Your task to perform on an android device: turn off picture-in-picture Image 0: 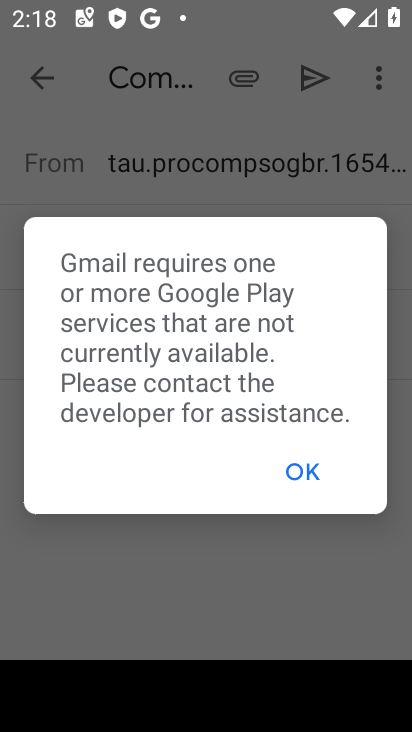
Step 0: click (301, 463)
Your task to perform on an android device: turn off picture-in-picture Image 1: 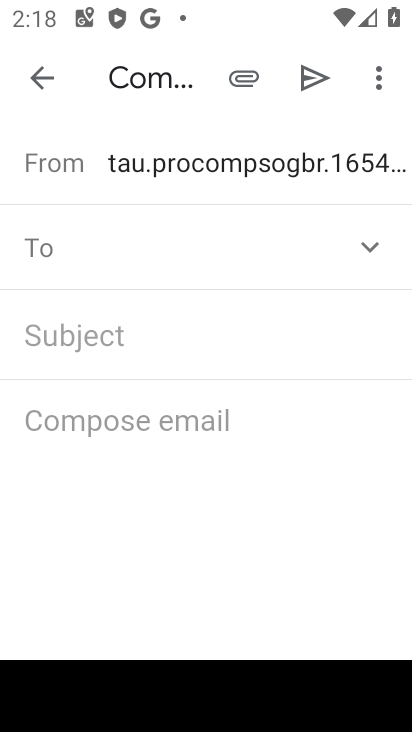
Step 1: press back button
Your task to perform on an android device: turn off picture-in-picture Image 2: 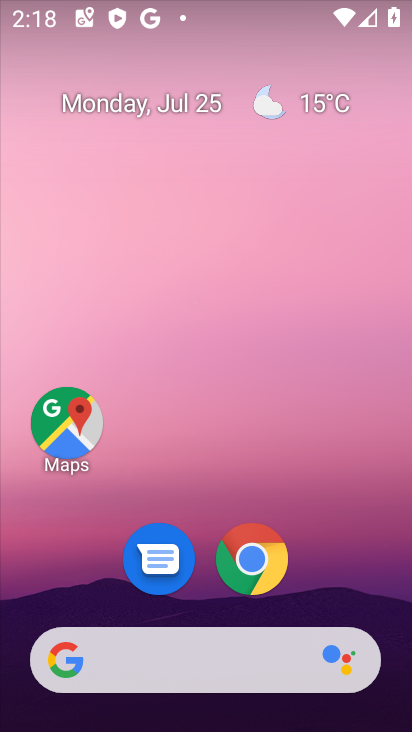
Step 2: drag from (103, 573) to (258, 14)
Your task to perform on an android device: turn off picture-in-picture Image 3: 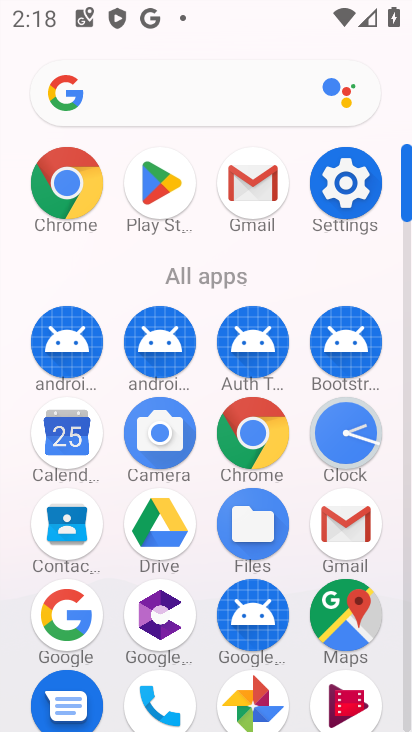
Step 3: click (338, 184)
Your task to perform on an android device: turn off picture-in-picture Image 4: 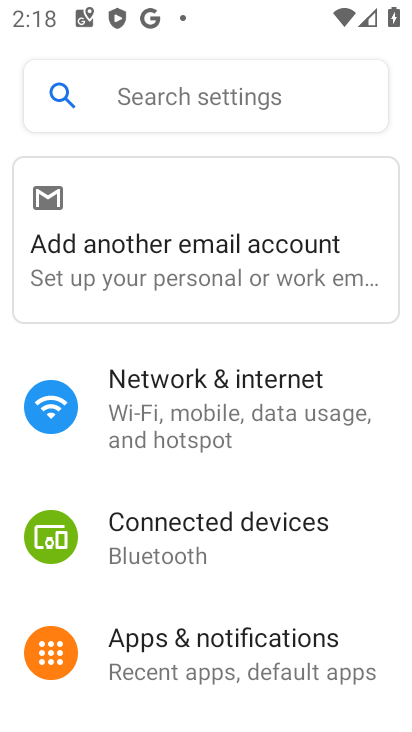
Step 4: drag from (245, 645) to (259, 39)
Your task to perform on an android device: turn off picture-in-picture Image 5: 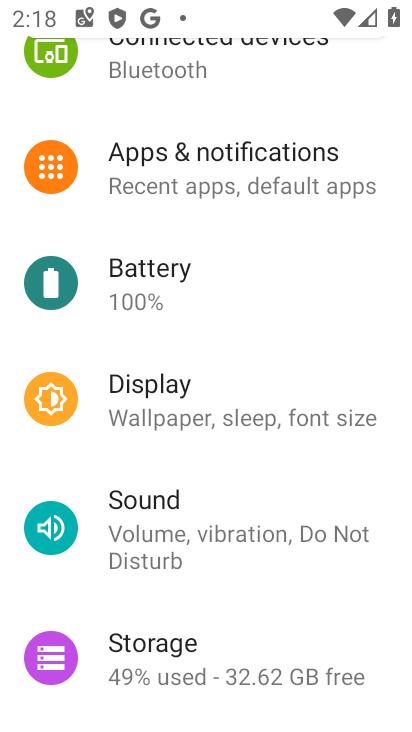
Step 5: drag from (130, 594) to (236, 720)
Your task to perform on an android device: turn off picture-in-picture Image 6: 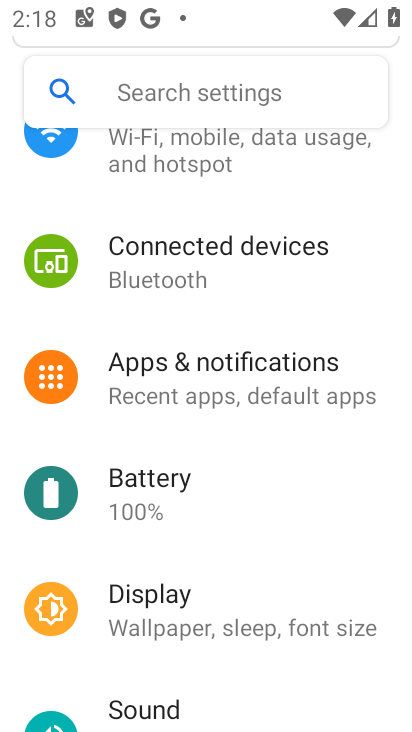
Step 6: click (248, 396)
Your task to perform on an android device: turn off picture-in-picture Image 7: 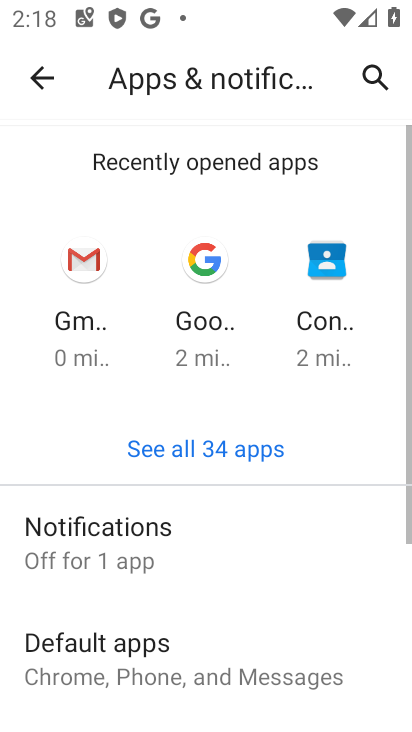
Step 7: drag from (165, 683) to (261, 47)
Your task to perform on an android device: turn off picture-in-picture Image 8: 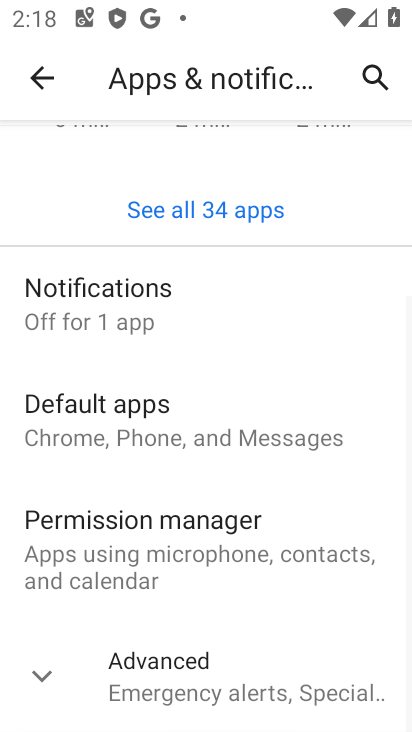
Step 8: drag from (126, 588) to (250, 188)
Your task to perform on an android device: turn off picture-in-picture Image 9: 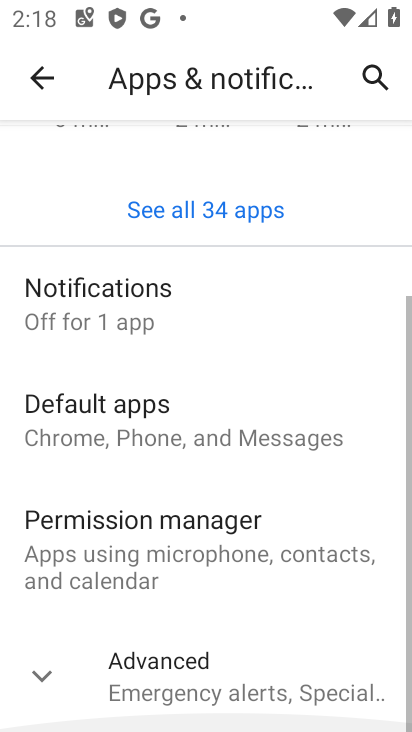
Step 9: click (181, 668)
Your task to perform on an android device: turn off picture-in-picture Image 10: 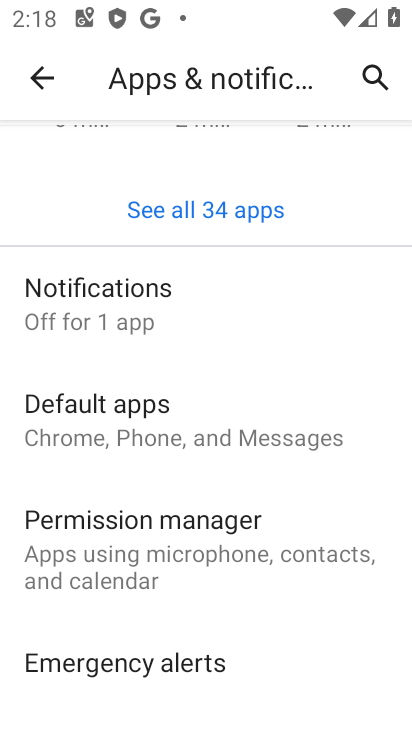
Step 10: drag from (180, 670) to (373, 7)
Your task to perform on an android device: turn off picture-in-picture Image 11: 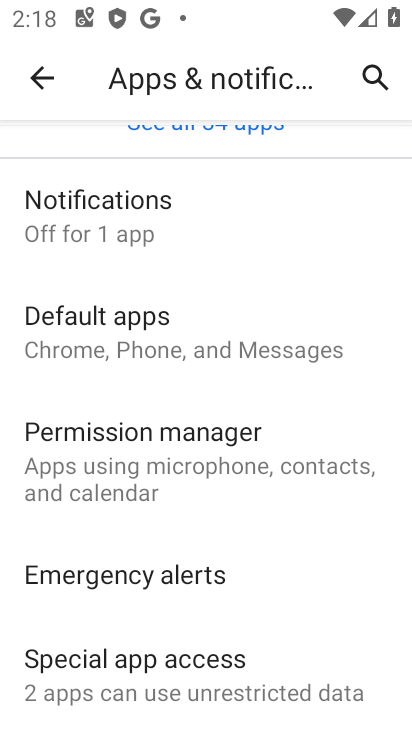
Step 11: click (134, 665)
Your task to perform on an android device: turn off picture-in-picture Image 12: 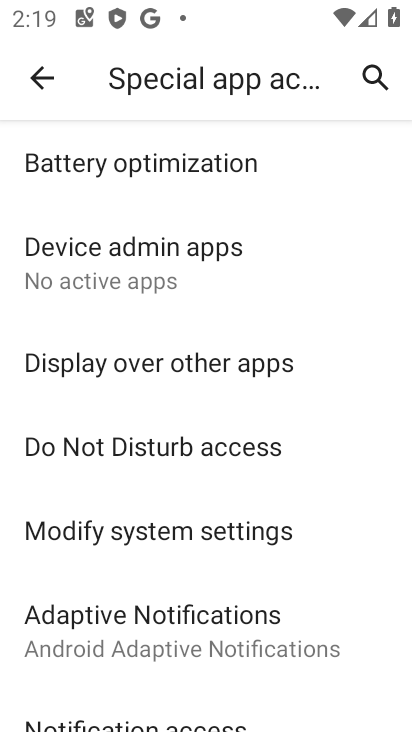
Step 12: drag from (167, 700) to (280, 54)
Your task to perform on an android device: turn off picture-in-picture Image 13: 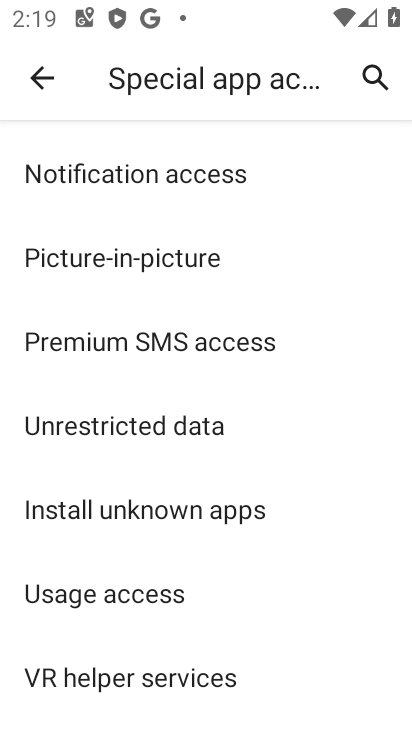
Step 13: click (129, 264)
Your task to perform on an android device: turn off picture-in-picture Image 14: 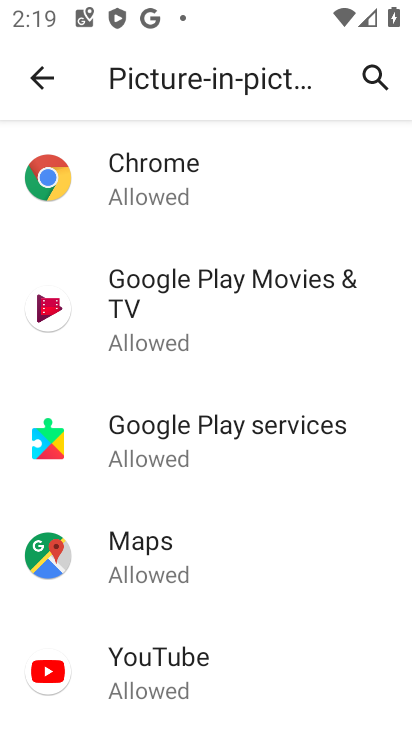
Step 14: click (197, 168)
Your task to perform on an android device: turn off picture-in-picture Image 15: 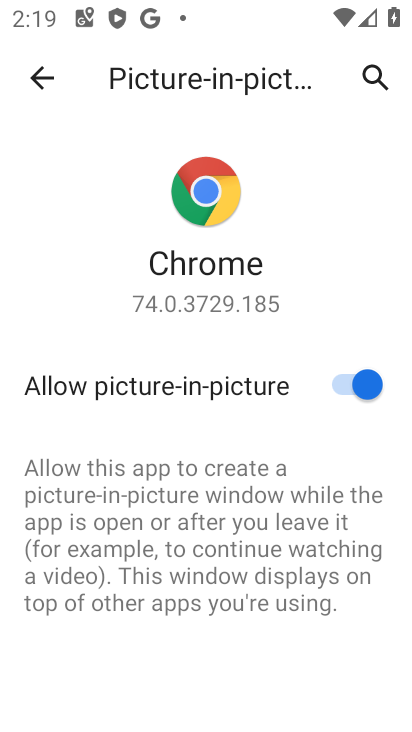
Step 15: click (358, 375)
Your task to perform on an android device: turn off picture-in-picture Image 16: 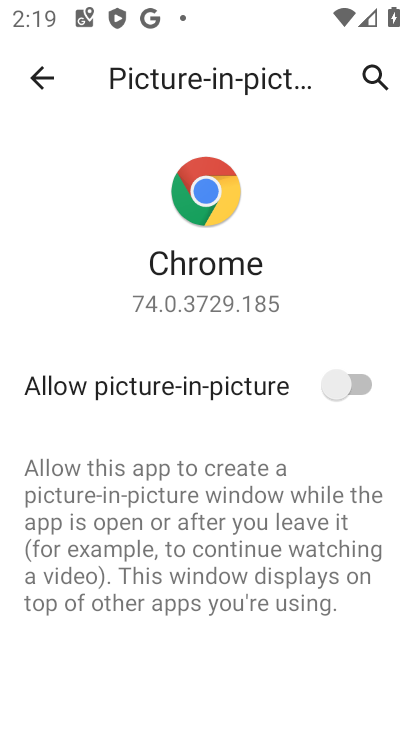
Step 16: task complete